Your task to perform on an android device: What's the weather today? Image 0: 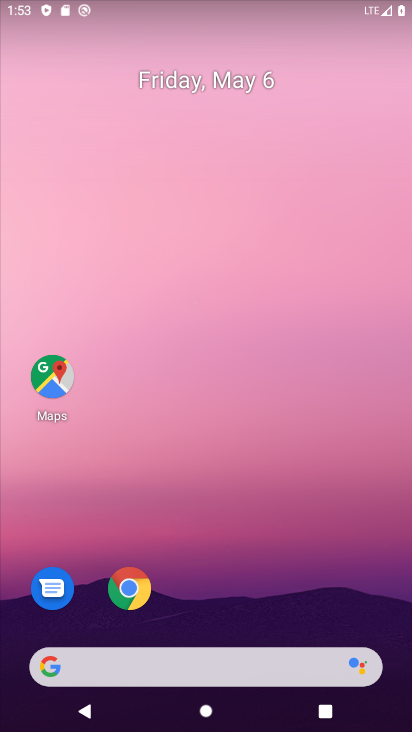
Step 0: drag from (334, 600) to (373, 69)
Your task to perform on an android device: What's the weather today? Image 1: 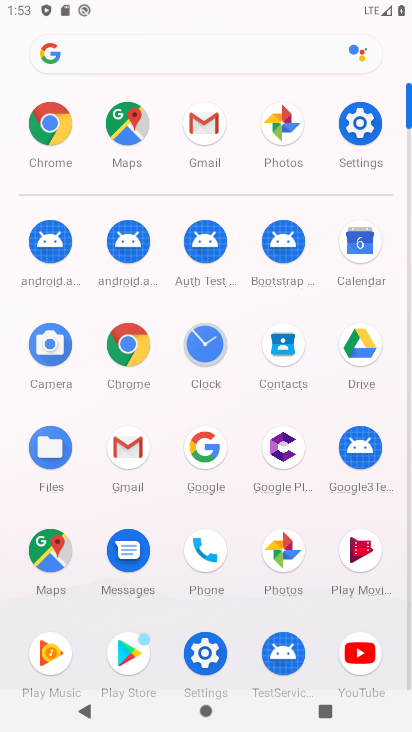
Step 1: click (127, 346)
Your task to perform on an android device: What's the weather today? Image 2: 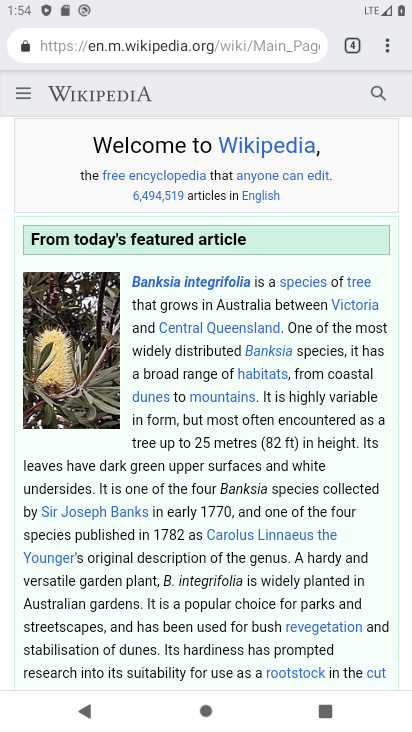
Step 2: click (197, 43)
Your task to perform on an android device: What's the weather today? Image 3: 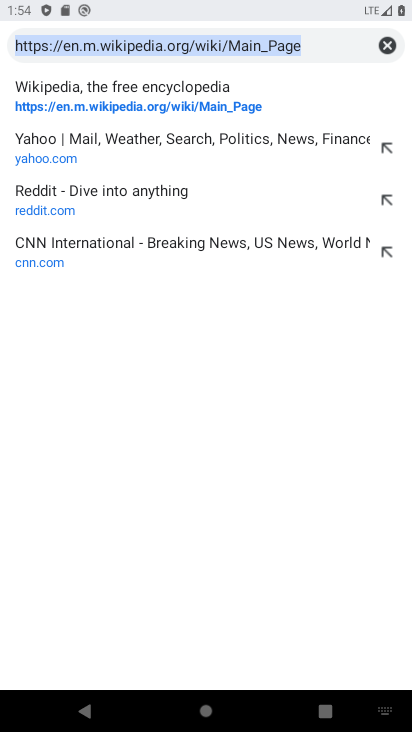
Step 3: click (386, 41)
Your task to perform on an android device: What's the weather today? Image 4: 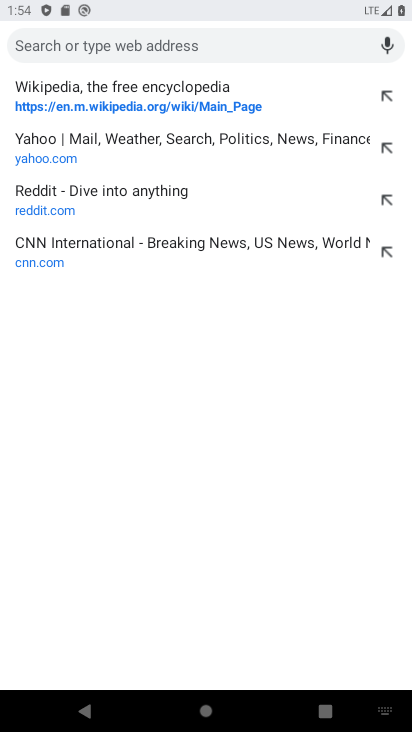
Step 4: type "what's the weather today"
Your task to perform on an android device: What's the weather today? Image 5: 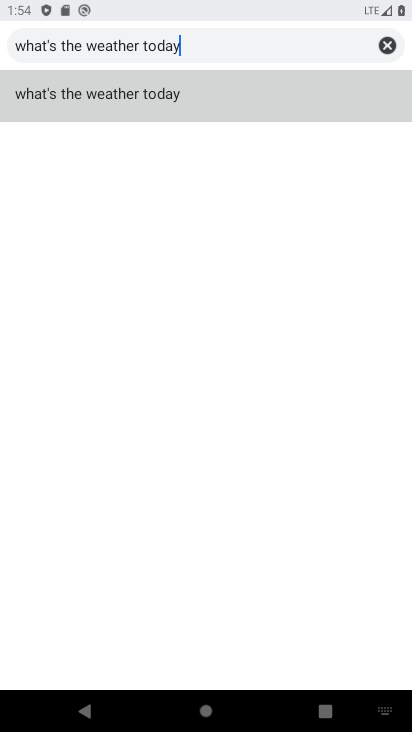
Step 5: click (151, 88)
Your task to perform on an android device: What's the weather today? Image 6: 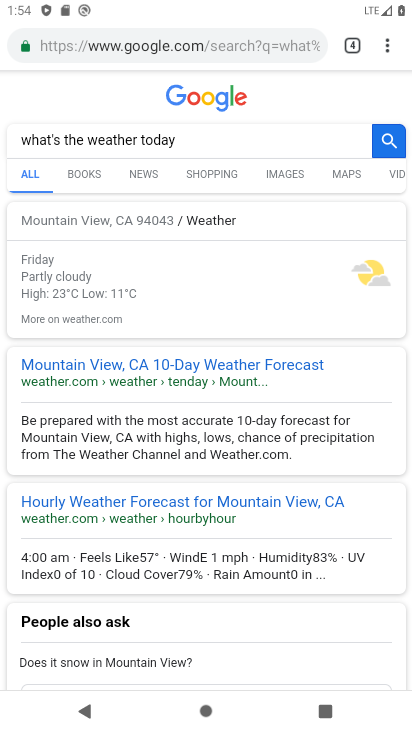
Step 6: task complete